Your task to perform on an android device: turn on sleep mode Image 0: 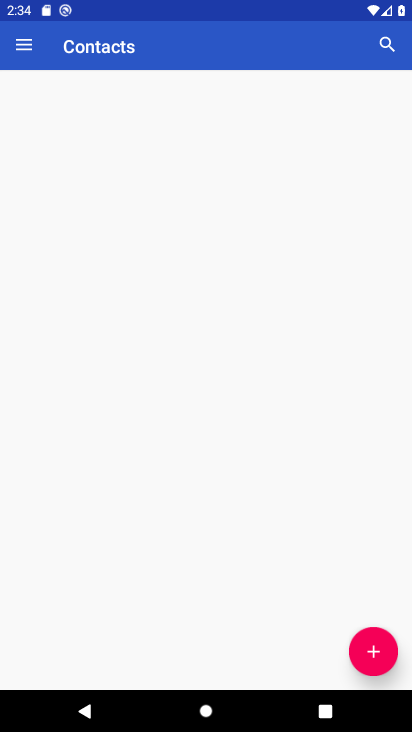
Step 0: press home button
Your task to perform on an android device: turn on sleep mode Image 1: 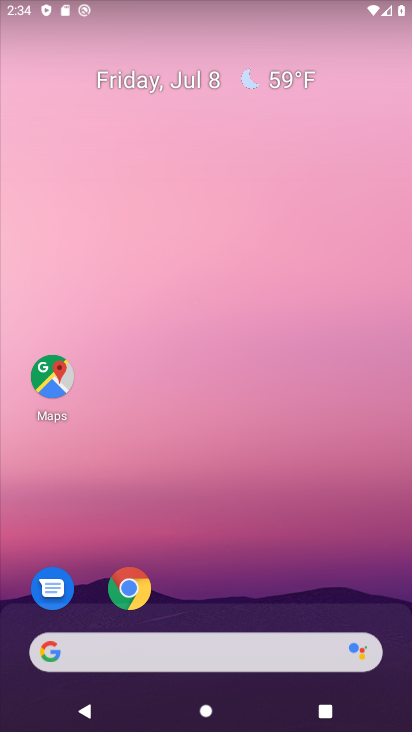
Step 1: drag from (218, 515) to (243, 160)
Your task to perform on an android device: turn on sleep mode Image 2: 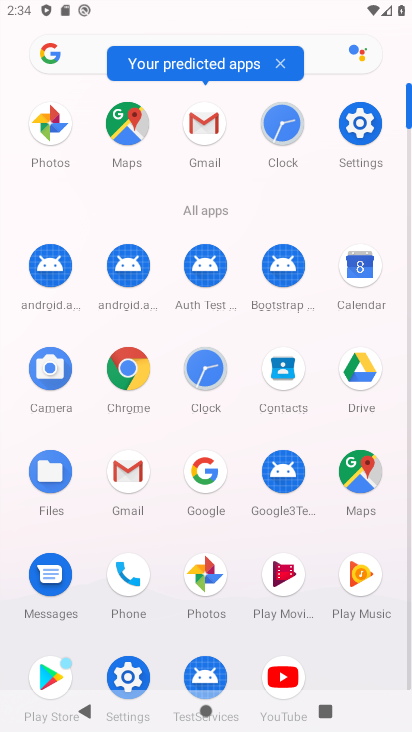
Step 2: click (359, 151)
Your task to perform on an android device: turn on sleep mode Image 3: 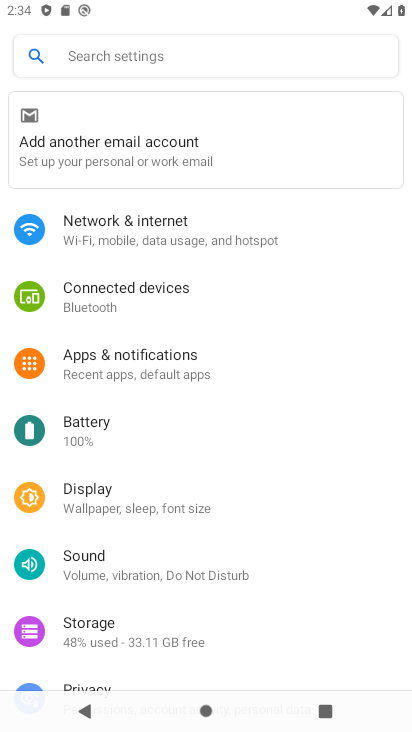
Step 3: click (250, 58)
Your task to perform on an android device: turn on sleep mode Image 4: 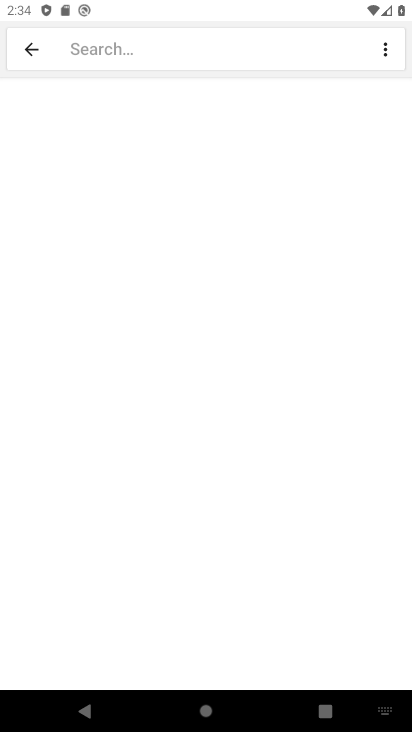
Step 4: type "sleep mode"
Your task to perform on an android device: turn on sleep mode Image 5: 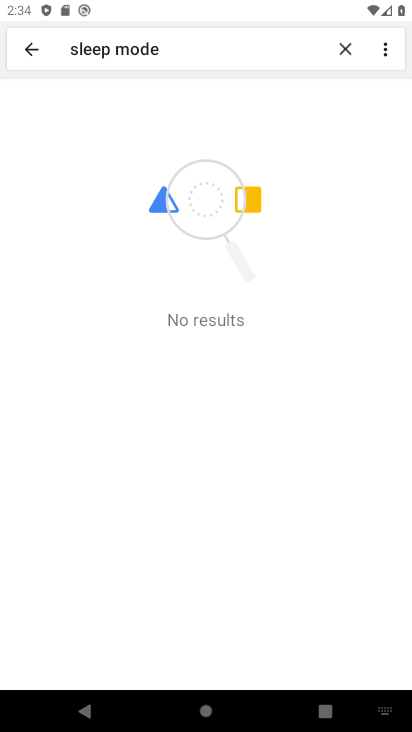
Step 5: task complete